Your task to perform on an android device: Empty the shopping cart on ebay.com. Search for razer deathadder on ebay.com, select the first entry, and add it to the cart. Image 0: 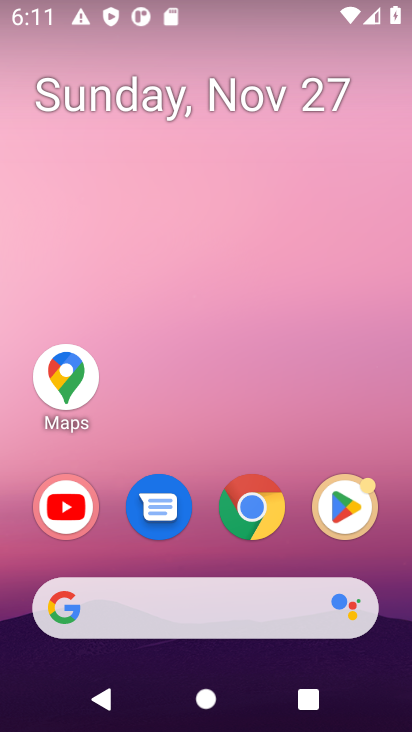
Step 0: click (248, 504)
Your task to perform on an android device: Empty the shopping cart on ebay.com. Search for razer deathadder on ebay.com, select the first entry, and add it to the cart. Image 1: 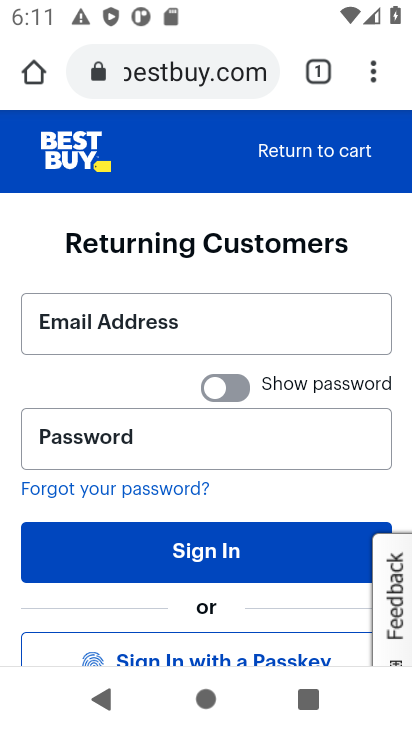
Step 1: click (205, 57)
Your task to perform on an android device: Empty the shopping cart on ebay.com. Search for razer deathadder on ebay.com, select the first entry, and add it to the cart. Image 2: 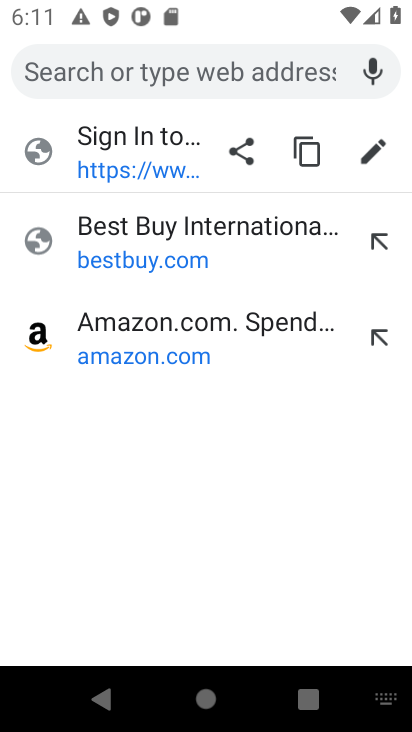
Step 2: type "ebay.com"
Your task to perform on an android device: Empty the shopping cart on ebay.com. Search for razer deathadder on ebay.com, select the first entry, and add it to the cart. Image 3: 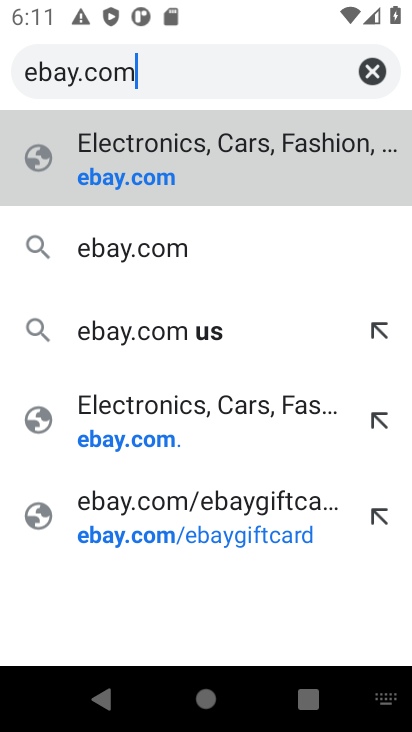
Step 3: click (113, 161)
Your task to perform on an android device: Empty the shopping cart on ebay.com. Search for razer deathadder on ebay.com, select the first entry, and add it to the cart. Image 4: 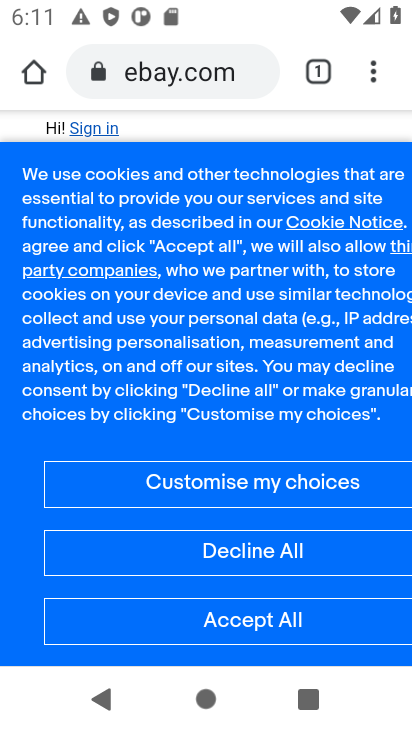
Step 4: click (261, 612)
Your task to perform on an android device: Empty the shopping cart on ebay.com. Search for razer deathadder on ebay.com, select the first entry, and add it to the cart. Image 5: 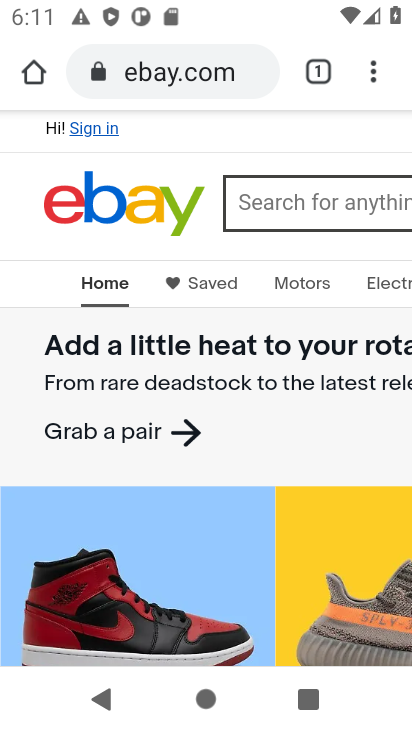
Step 5: drag from (345, 259) to (56, 223)
Your task to perform on an android device: Empty the shopping cart on ebay.com. Search for razer deathadder on ebay.com, select the first entry, and add it to the cart. Image 6: 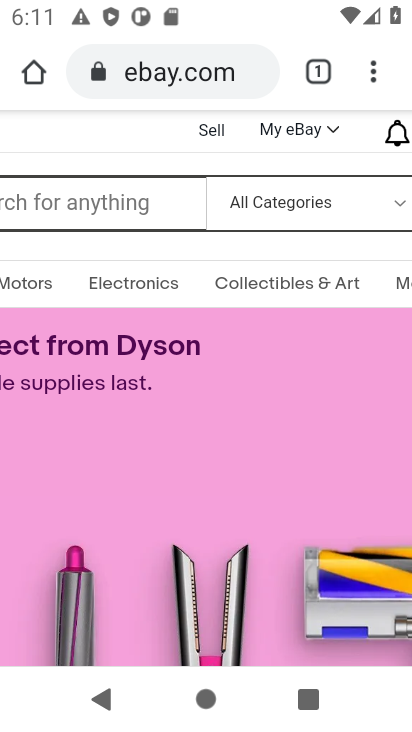
Step 6: drag from (382, 262) to (60, 224)
Your task to perform on an android device: Empty the shopping cart on ebay.com. Search for razer deathadder on ebay.com, select the first entry, and add it to the cart. Image 7: 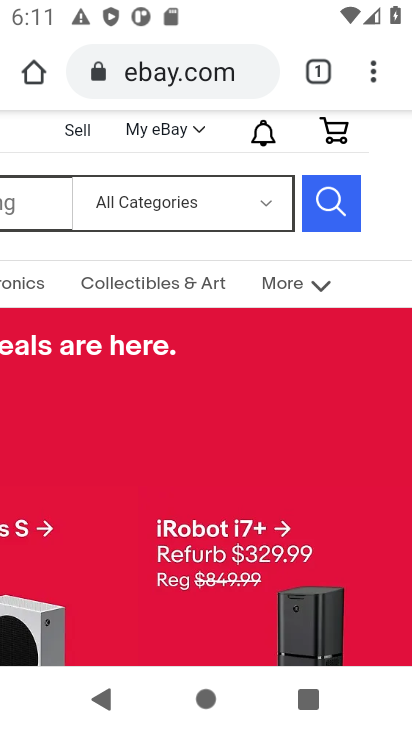
Step 7: click (330, 123)
Your task to perform on an android device: Empty the shopping cart on ebay.com. Search for razer deathadder on ebay.com, select the first entry, and add it to the cart. Image 8: 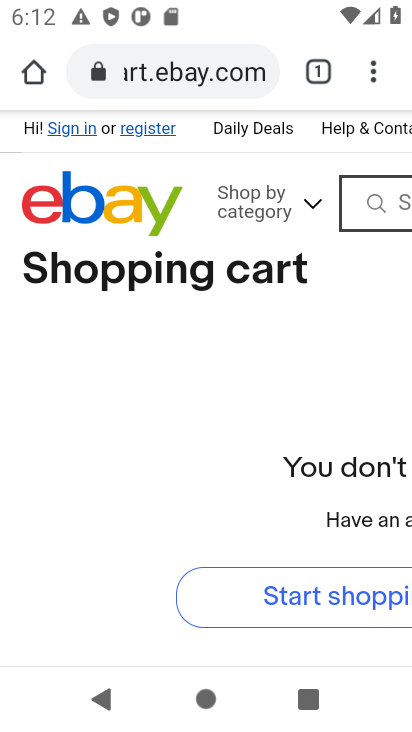
Step 8: click (369, 206)
Your task to perform on an android device: Empty the shopping cart on ebay.com. Search for razer deathadder on ebay.com, select the first entry, and add it to the cart. Image 9: 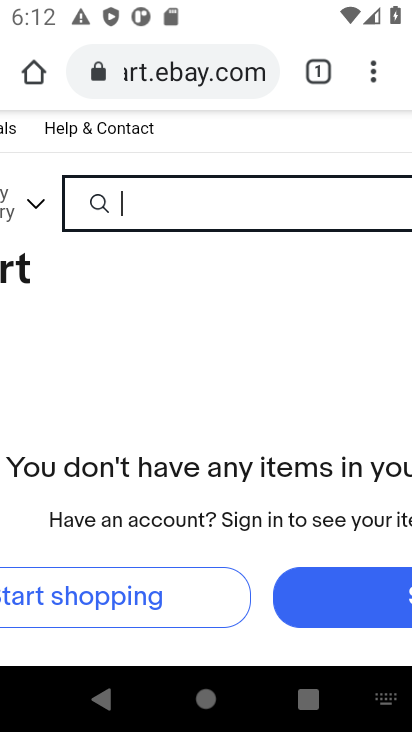
Step 9: type "razer dearhadder"
Your task to perform on an android device: Empty the shopping cart on ebay.com. Search for razer deathadder on ebay.com, select the first entry, and add it to the cart. Image 10: 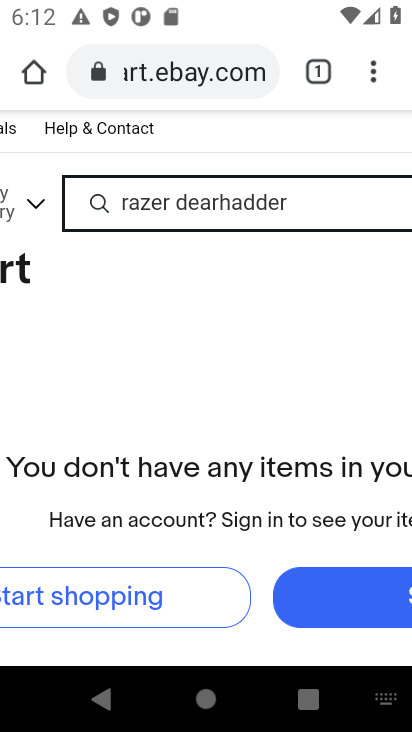
Step 10: click (216, 201)
Your task to perform on an android device: Empty the shopping cart on ebay.com. Search for razer deathadder on ebay.com, select the first entry, and add it to the cart. Image 11: 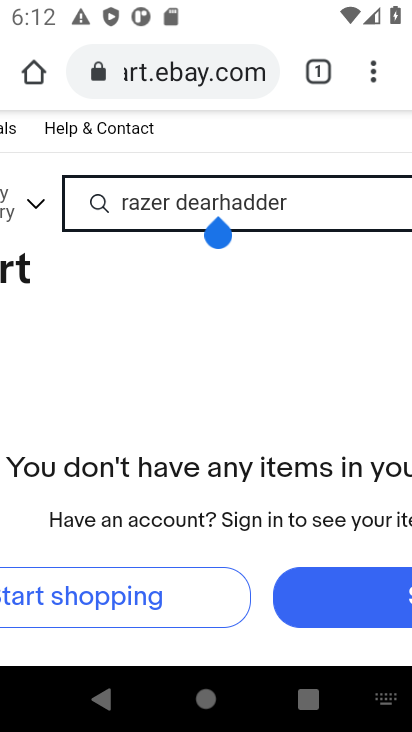
Step 11: click (216, 201)
Your task to perform on an android device: Empty the shopping cart on ebay.com. Search for razer deathadder on ebay.com, select the first entry, and add it to the cart. Image 12: 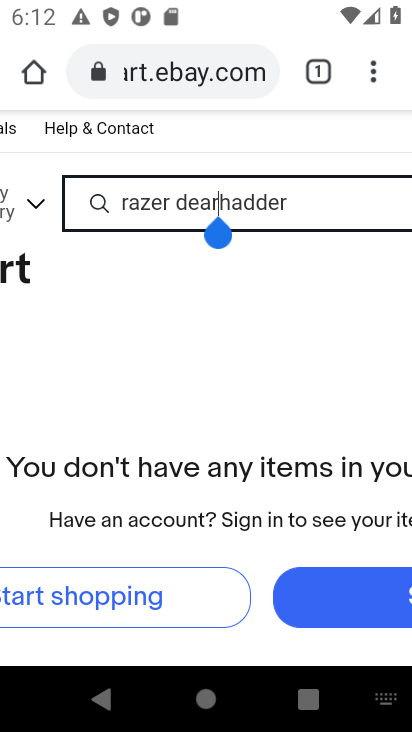
Step 12: click (216, 201)
Your task to perform on an android device: Empty the shopping cart on ebay.com. Search for razer deathadder on ebay.com, select the first entry, and add it to the cart. Image 13: 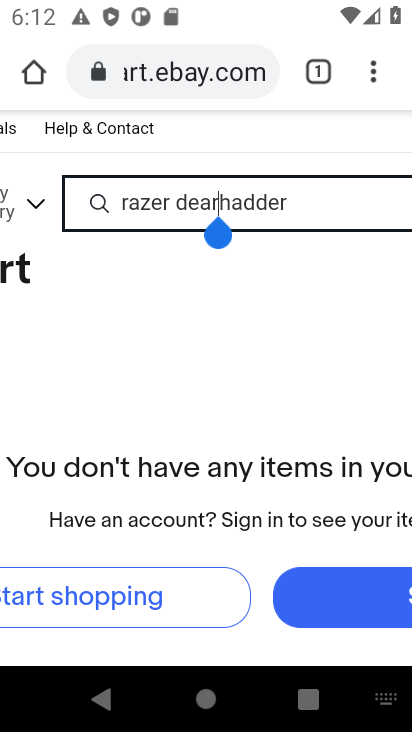
Step 13: click (216, 201)
Your task to perform on an android device: Empty the shopping cart on ebay.com. Search for razer deathadder on ebay.com, select the first entry, and add it to the cart. Image 14: 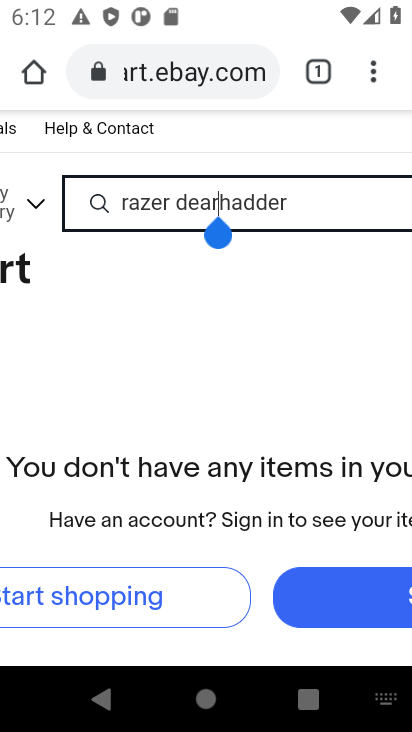
Step 14: click (216, 201)
Your task to perform on an android device: Empty the shopping cart on ebay.com. Search for razer deathadder on ebay.com, select the first entry, and add it to the cart. Image 15: 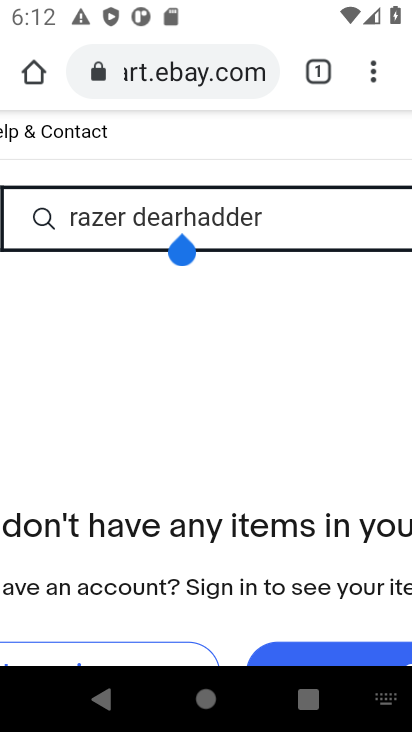
Step 15: click (159, 216)
Your task to perform on an android device: Empty the shopping cart on ebay.com. Search for razer deathadder on ebay.com, select the first entry, and add it to the cart. Image 16: 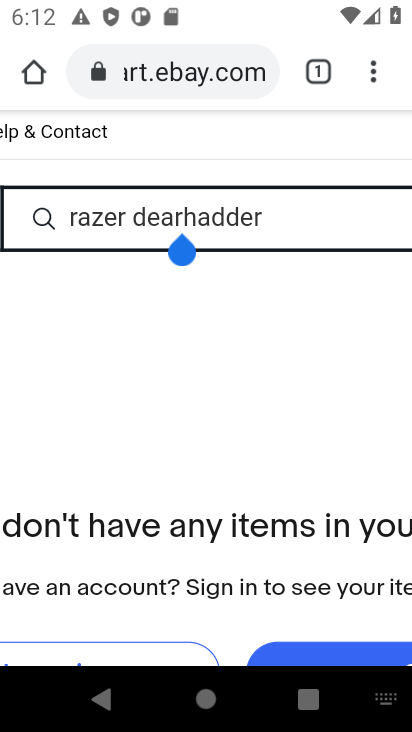
Step 16: click (159, 216)
Your task to perform on an android device: Empty the shopping cart on ebay.com. Search for razer deathadder on ebay.com, select the first entry, and add it to the cart. Image 17: 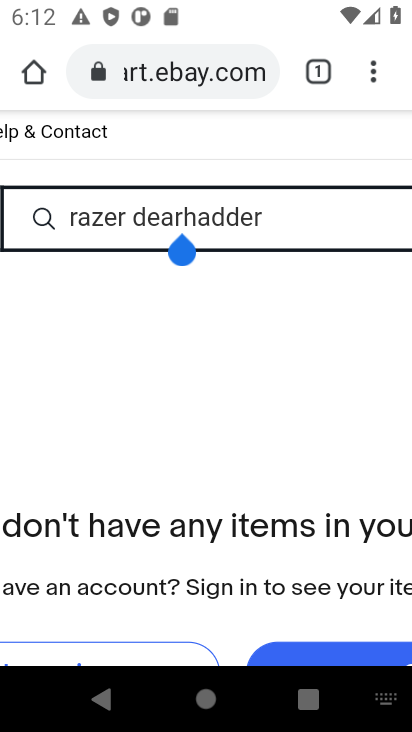
Step 17: click (159, 216)
Your task to perform on an android device: Empty the shopping cart on ebay.com. Search for razer deathadder on ebay.com, select the first entry, and add it to the cart. Image 18: 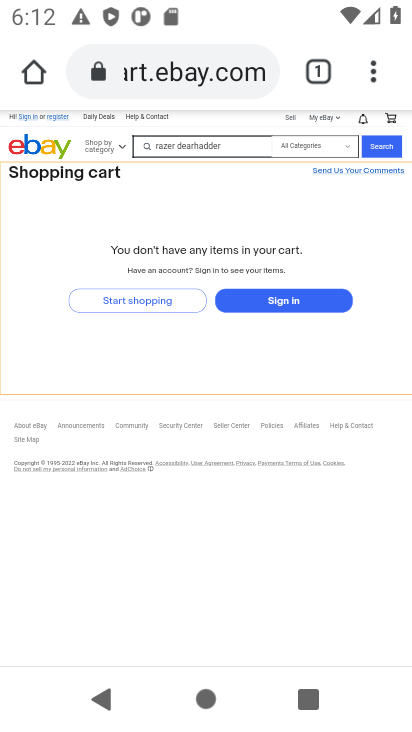
Step 18: click (386, 145)
Your task to perform on an android device: Empty the shopping cart on ebay.com. Search for razer deathadder on ebay.com, select the first entry, and add it to the cart. Image 19: 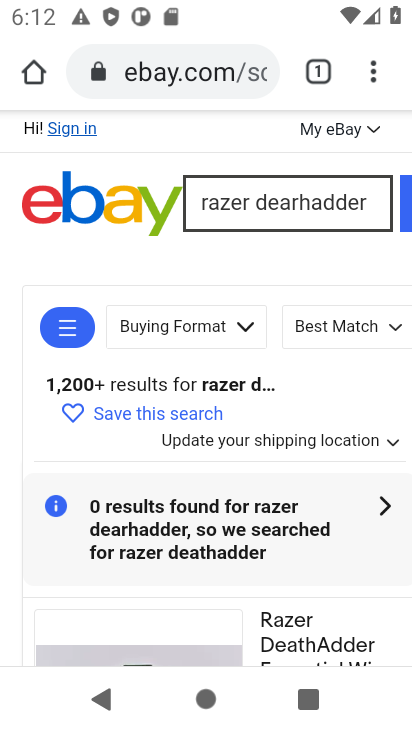
Step 19: drag from (189, 589) to (183, 339)
Your task to perform on an android device: Empty the shopping cart on ebay.com. Search for razer deathadder on ebay.com, select the first entry, and add it to the cart. Image 20: 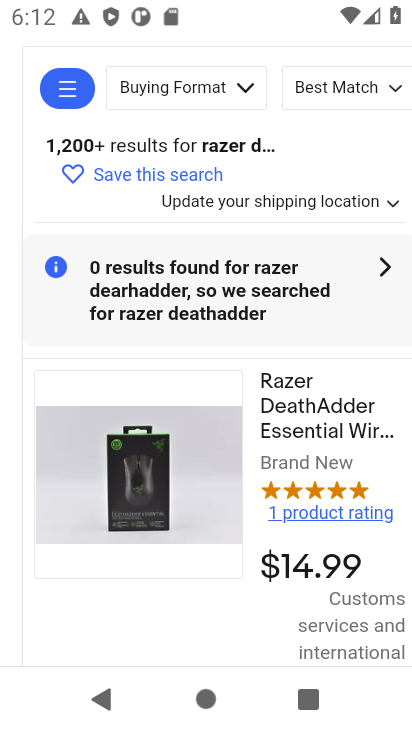
Step 20: drag from (207, 582) to (183, 278)
Your task to perform on an android device: Empty the shopping cart on ebay.com. Search for razer deathadder on ebay.com, select the first entry, and add it to the cart. Image 21: 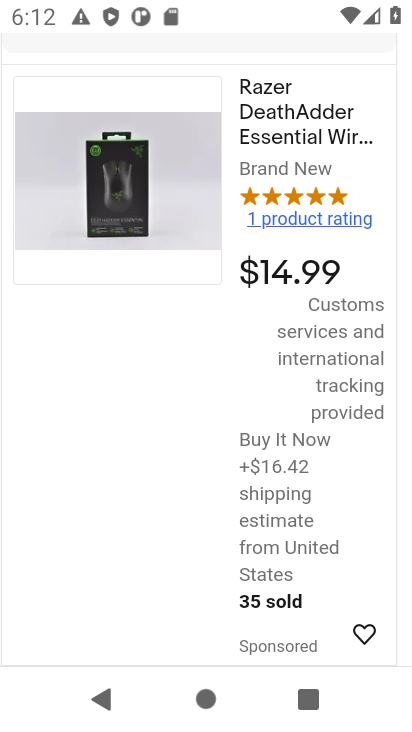
Step 21: drag from (288, 587) to (318, 265)
Your task to perform on an android device: Empty the shopping cart on ebay.com. Search for razer deathadder on ebay.com, select the first entry, and add it to the cart. Image 22: 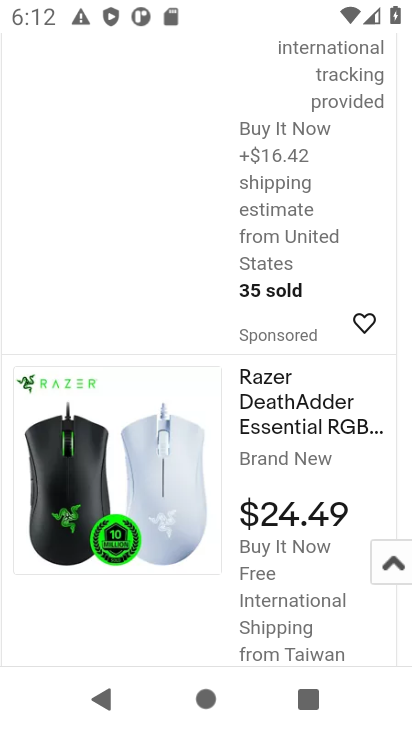
Step 22: drag from (240, 282) to (254, 579)
Your task to perform on an android device: Empty the shopping cart on ebay.com. Search for razer deathadder on ebay.com, select the first entry, and add it to the cart. Image 23: 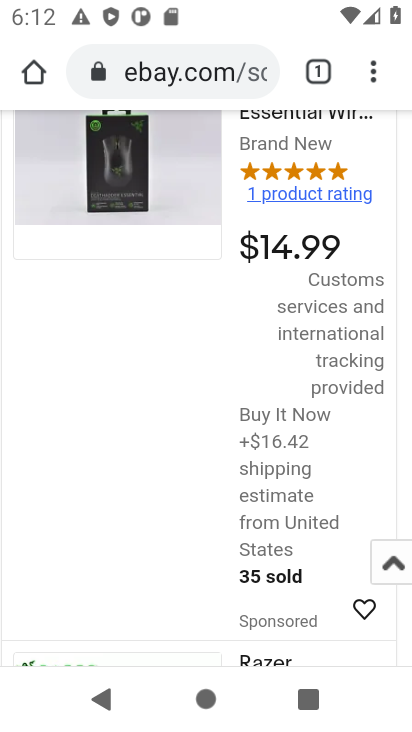
Step 23: click (285, 139)
Your task to perform on an android device: Empty the shopping cart on ebay.com. Search for razer deathadder on ebay.com, select the first entry, and add it to the cart. Image 24: 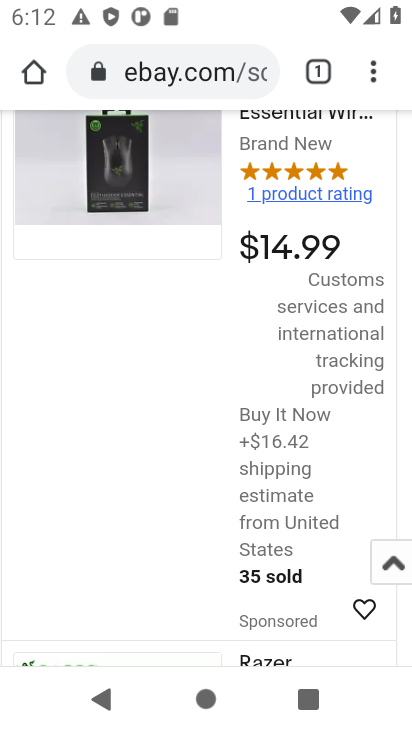
Step 24: click (177, 170)
Your task to perform on an android device: Empty the shopping cart on ebay.com. Search for razer deathadder on ebay.com, select the first entry, and add it to the cart. Image 25: 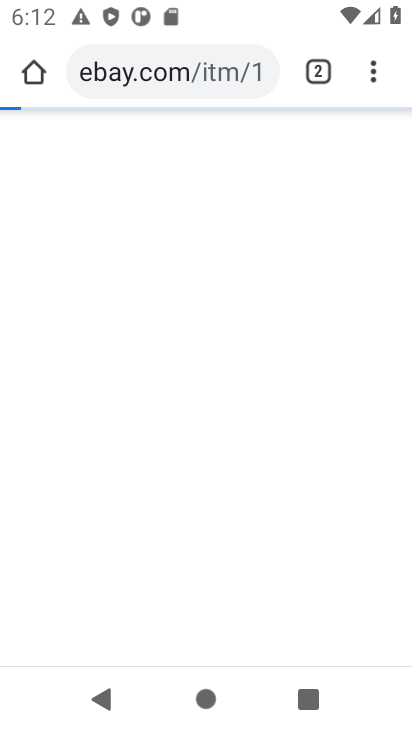
Step 25: drag from (212, 167) to (233, 291)
Your task to perform on an android device: Empty the shopping cart on ebay.com. Search for razer deathadder on ebay.com, select the first entry, and add it to the cart. Image 26: 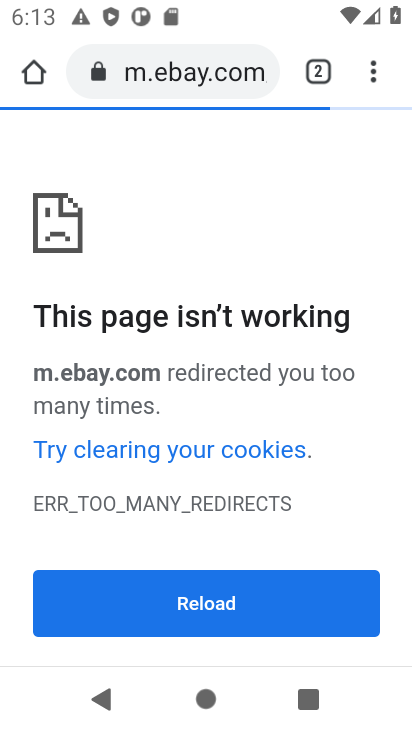
Step 26: click (235, 592)
Your task to perform on an android device: Empty the shopping cart on ebay.com. Search for razer deathadder on ebay.com, select the first entry, and add it to the cart. Image 27: 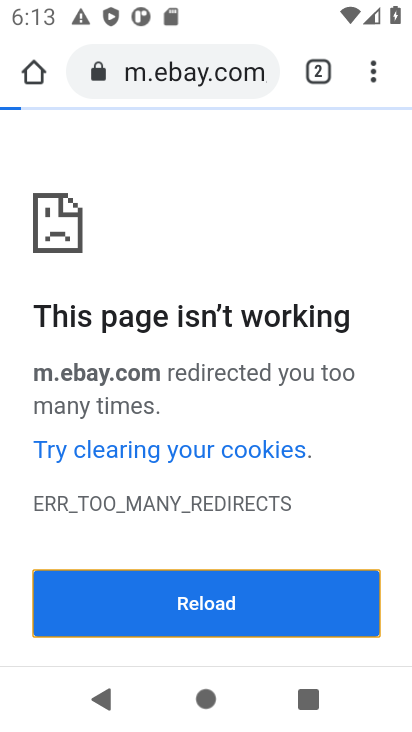
Step 27: click (235, 592)
Your task to perform on an android device: Empty the shopping cart on ebay.com. Search for razer deathadder on ebay.com, select the first entry, and add it to the cart. Image 28: 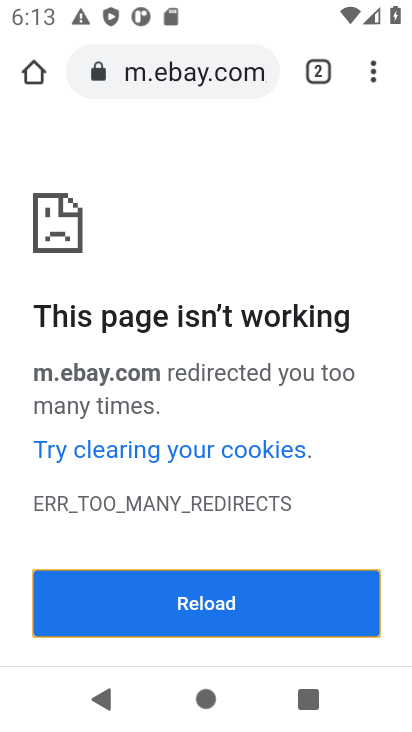
Step 28: click (235, 592)
Your task to perform on an android device: Empty the shopping cart on ebay.com. Search for razer deathadder on ebay.com, select the first entry, and add it to the cart. Image 29: 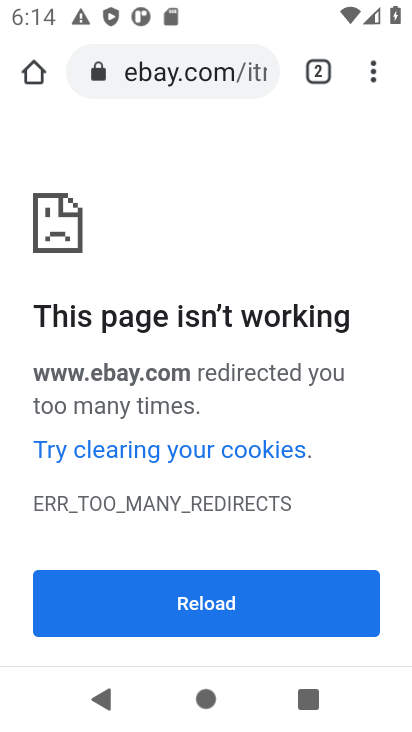
Step 29: task complete